Your task to perform on an android device: Add "razer blade" to the cart on newegg Image 0: 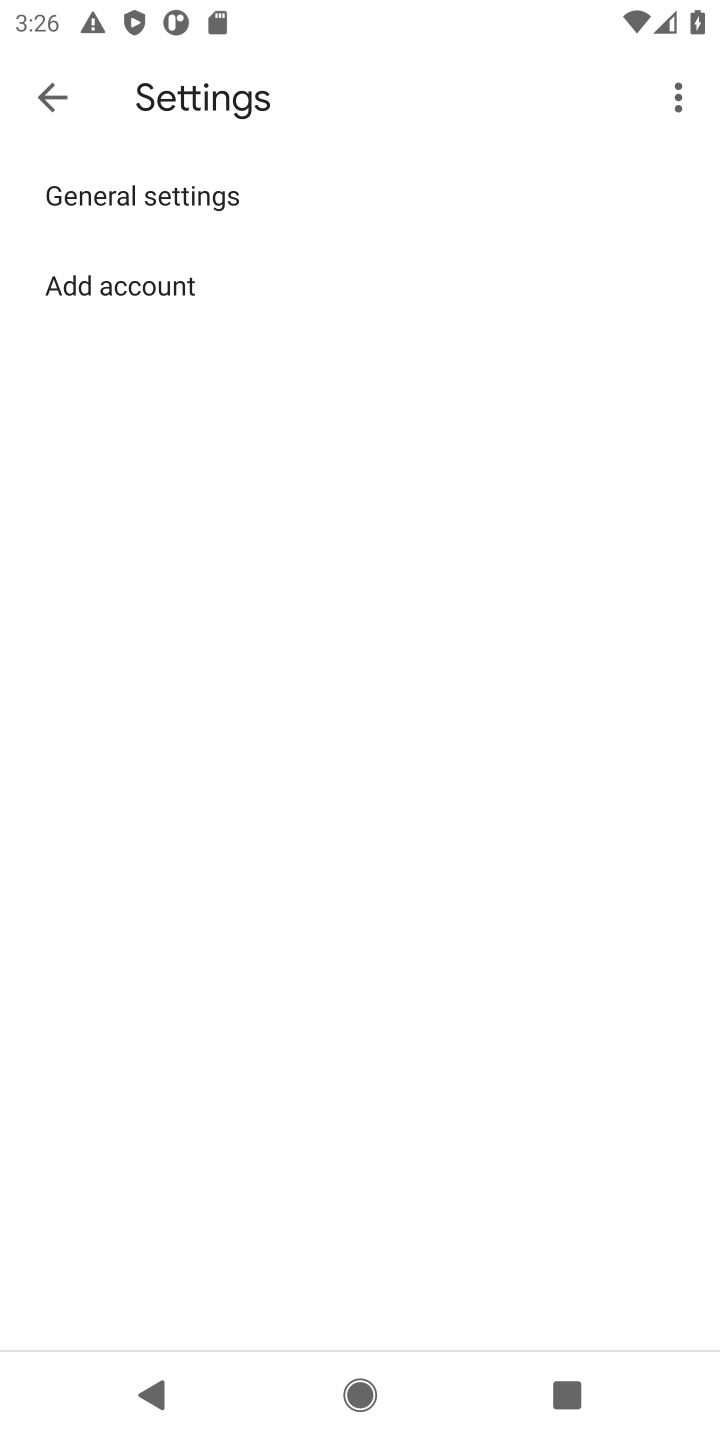
Step 0: press home button
Your task to perform on an android device: Add "razer blade" to the cart on newegg Image 1: 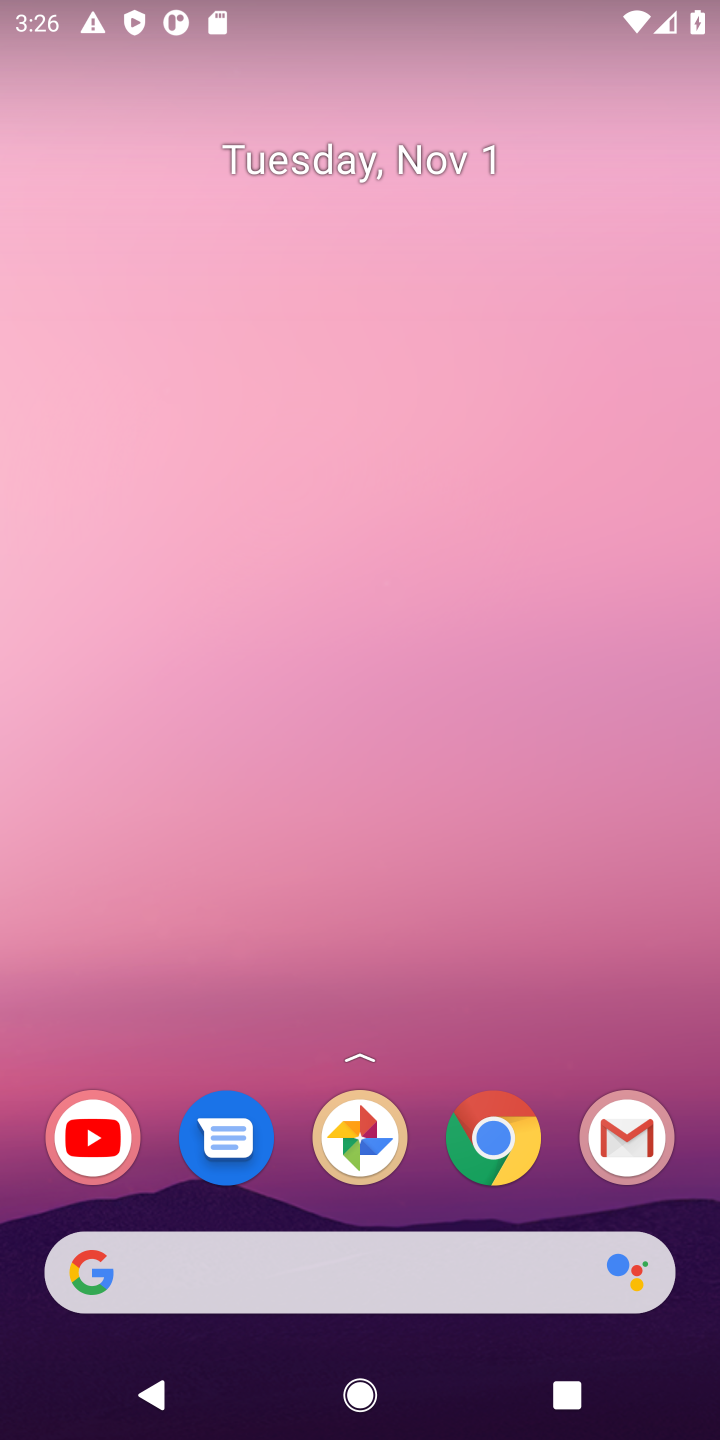
Step 1: click (498, 1151)
Your task to perform on an android device: Add "razer blade" to the cart on newegg Image 2: 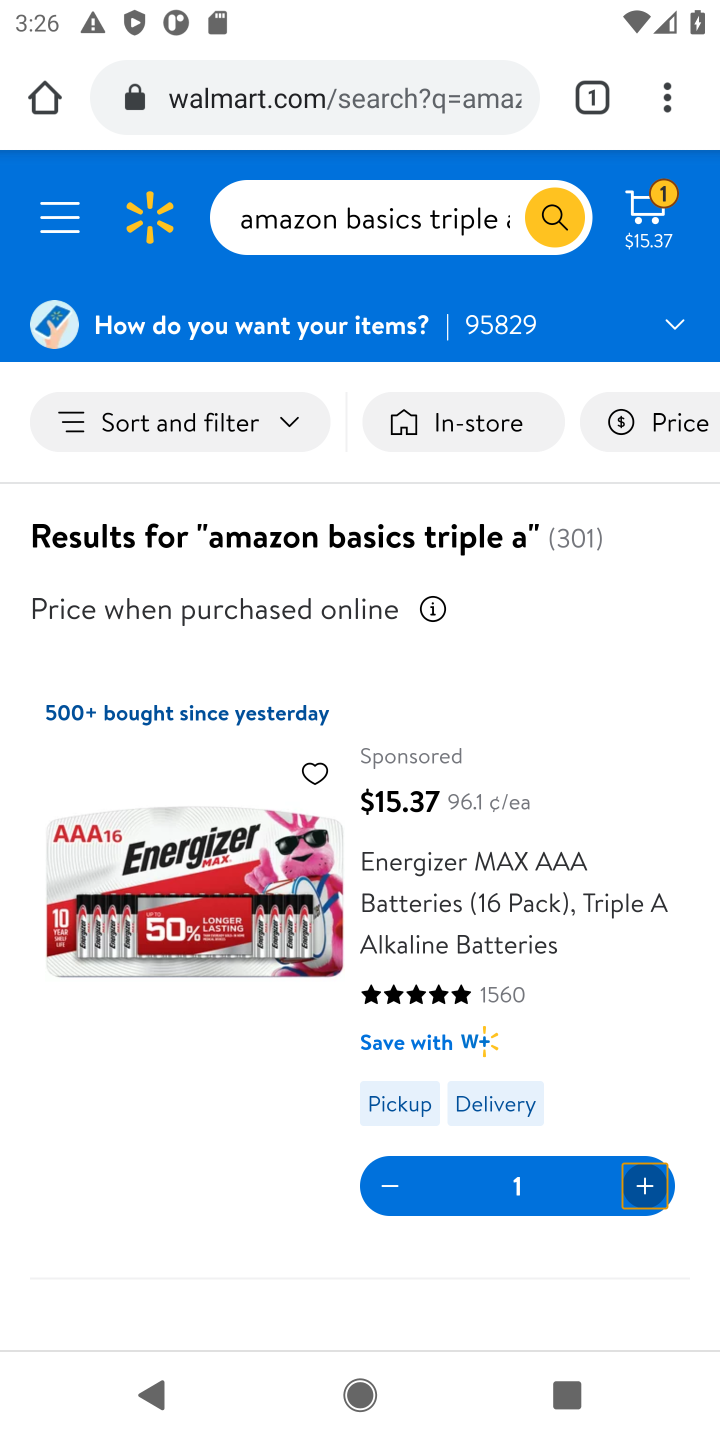
Step 2: click (363, 91)
Your task to perform on an android device: Add "razer blade" to the cart on newegg Image 3: 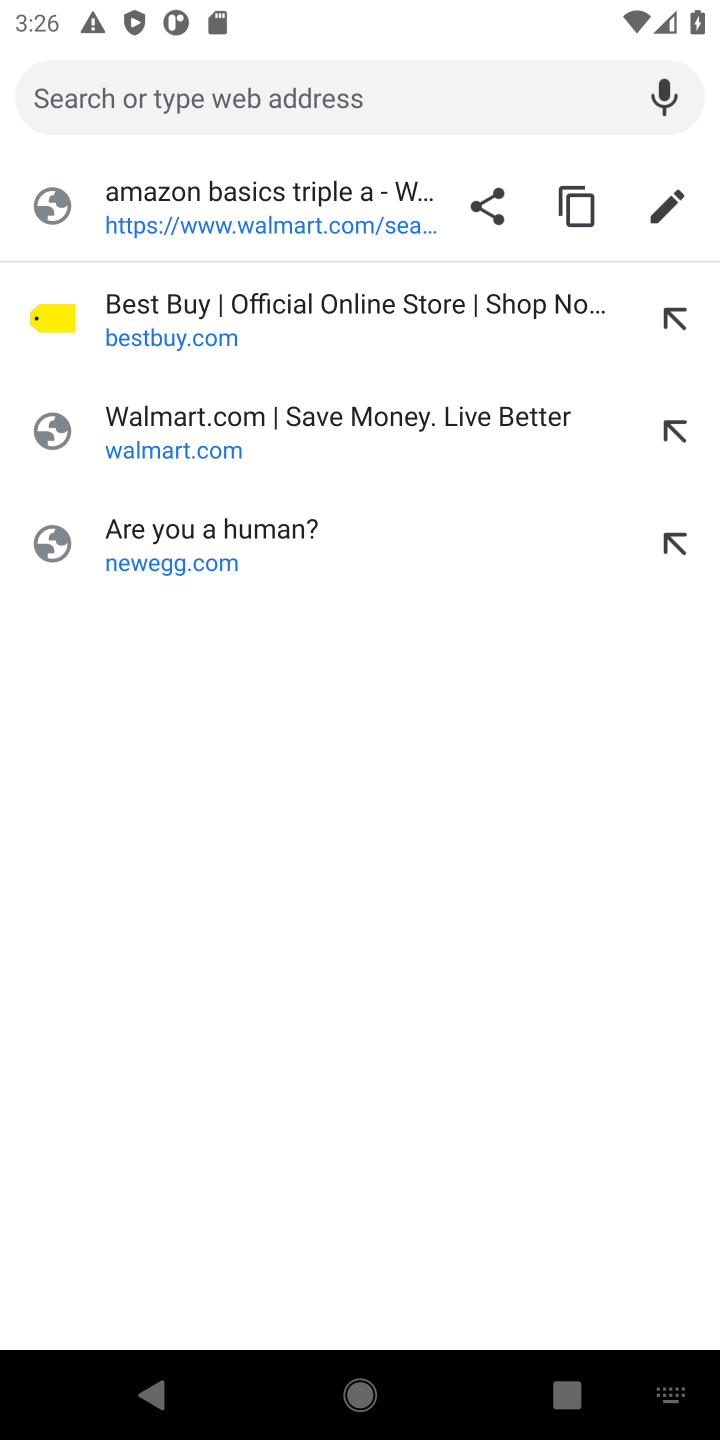
Step 3: type "newegg"
Your task to perform on an android device: Add "razer blade" to the cart on newegg Image 4: 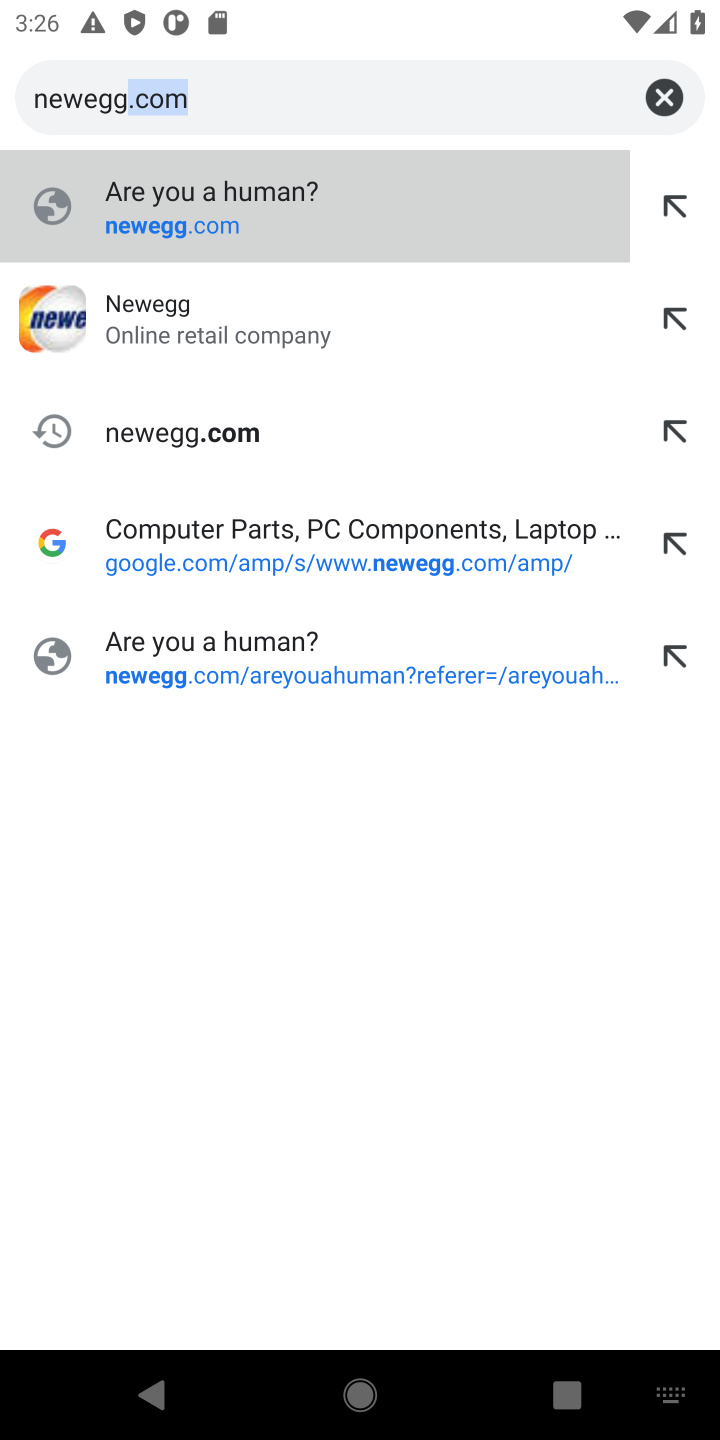
Step 4: click (187, 321)
Your task to perform on an android device: Add "razer blade" to the cart on newegg Image 5: 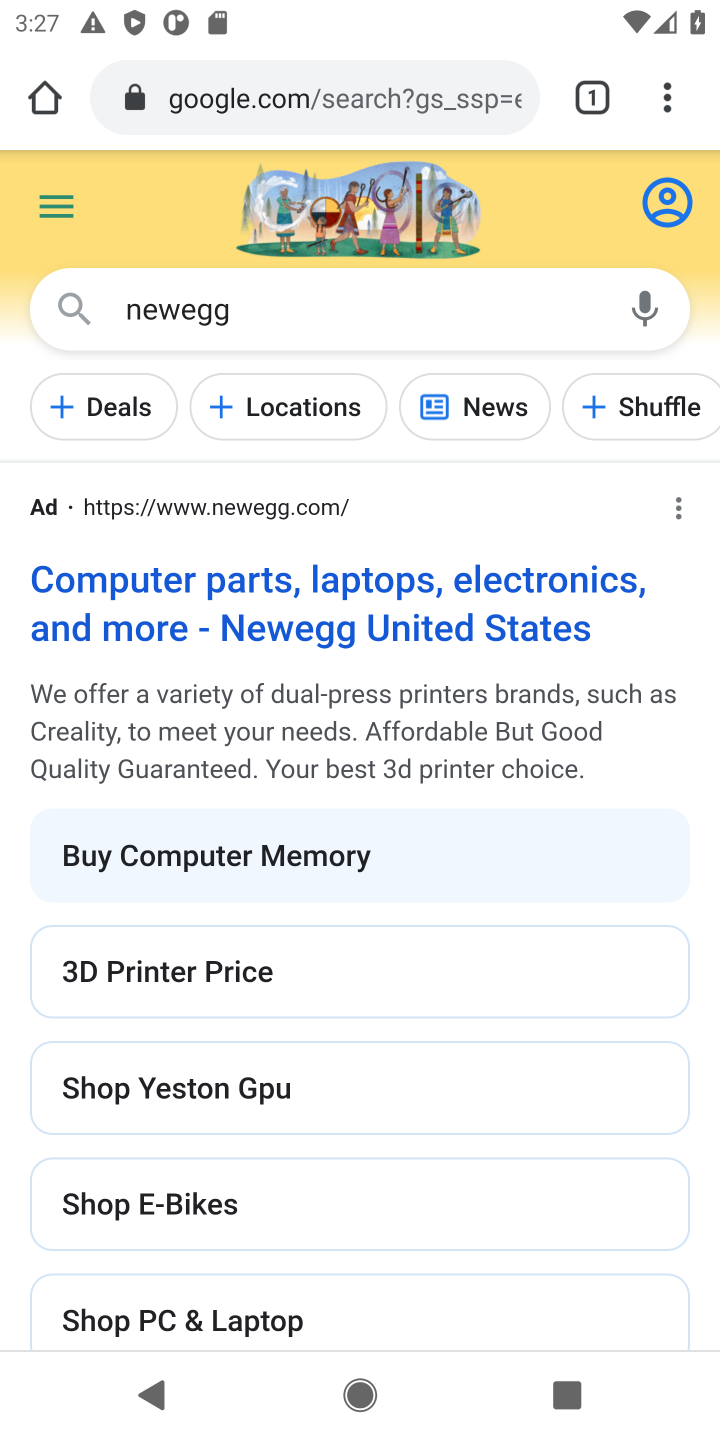
Step 5: drag from (308, 1209) to (315, 766)
Your task to perform on an android device: Add "razer blade" to the cart on newegg Image 6: 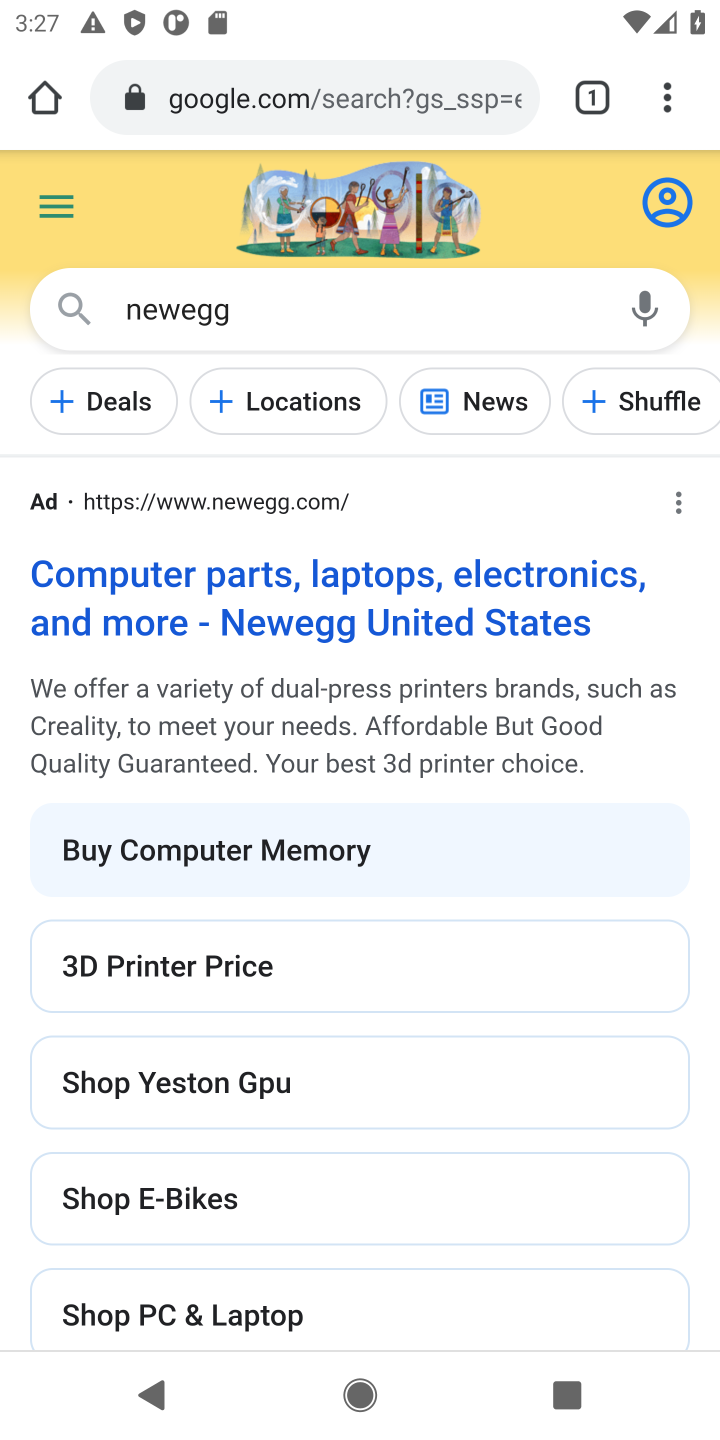
Step 6: drag from (315, 1002) to (356, 733)
Your task to perform on an android device: Add "razer blade" to the cart on newegg Image 7: 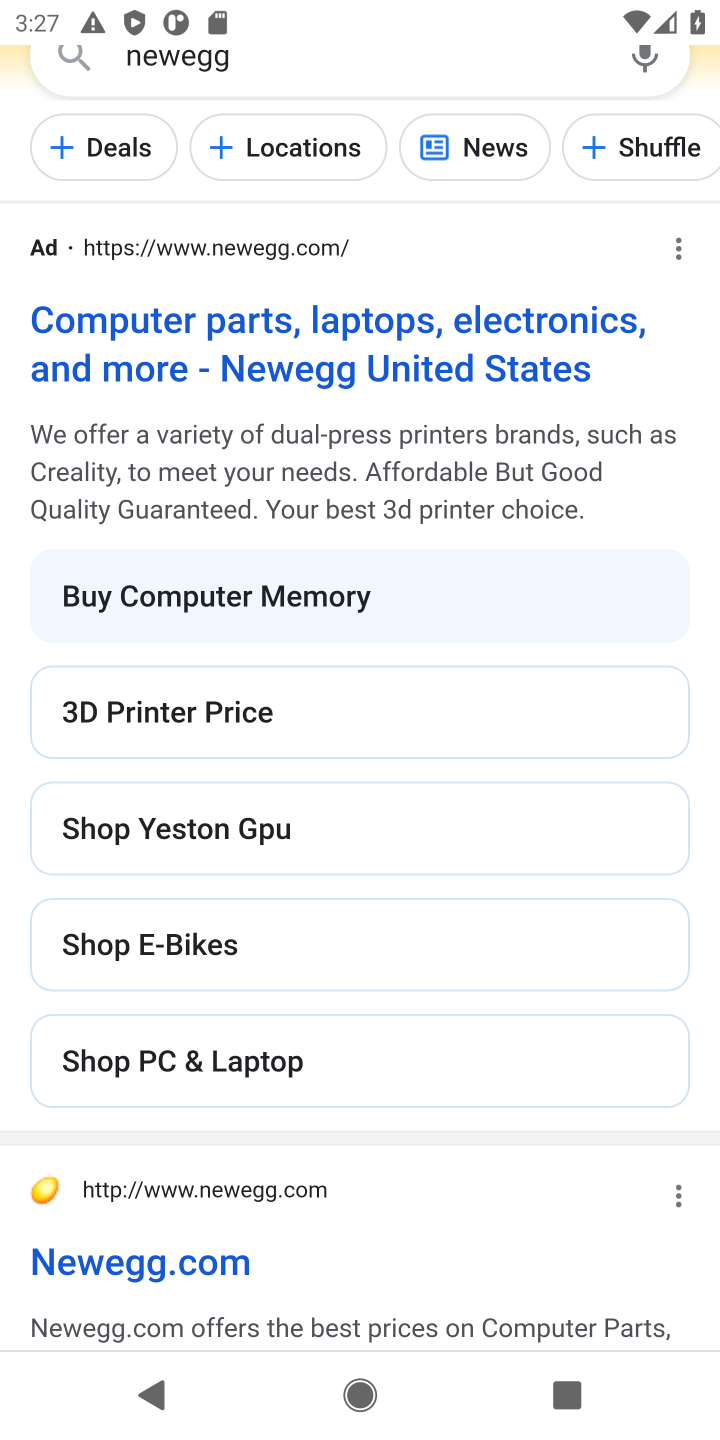
Step 7: click (167, 1283)
Your task to perform on an android device: Add "razer blade" to the cart on newegg Image 8: 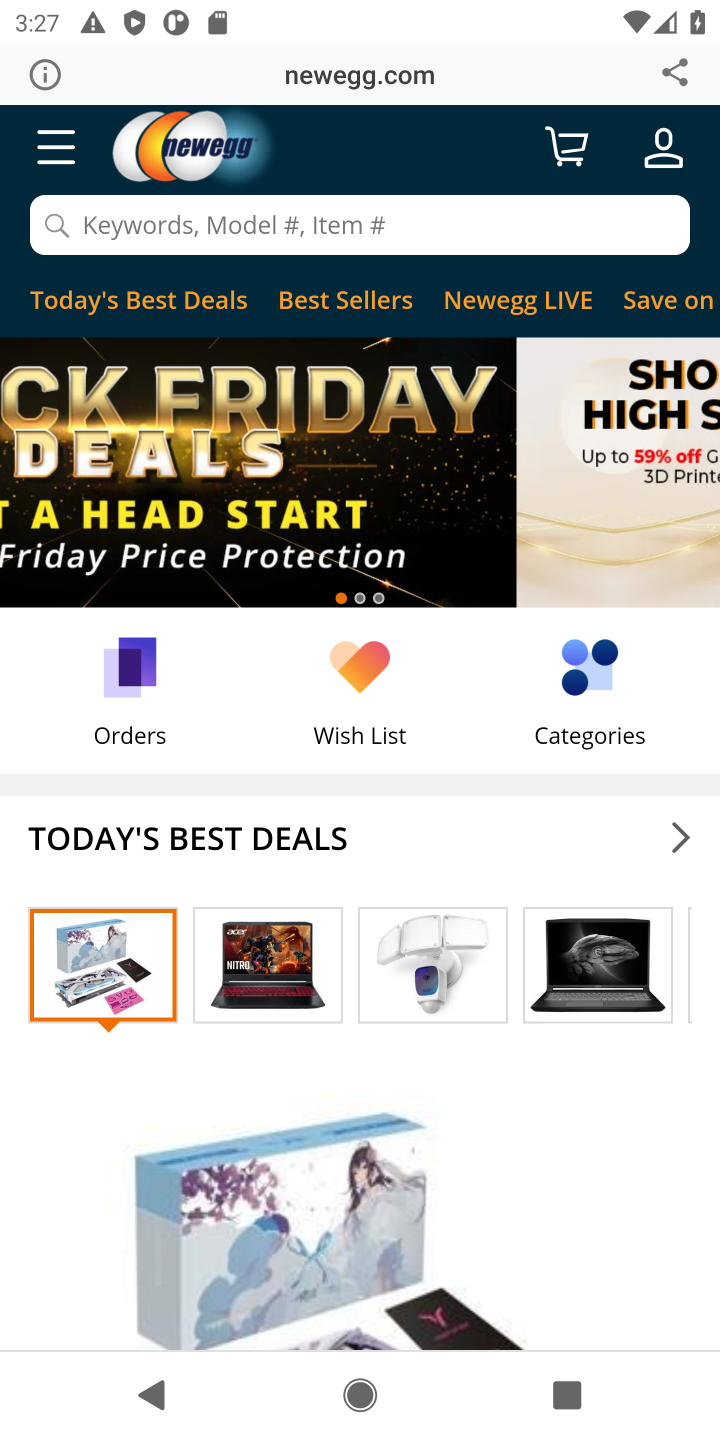
Step 8: drag from (345, 1215) to (391, 752)
Your task to perform on an android device: Add "razer blade" to the cart on newegg Image 9: 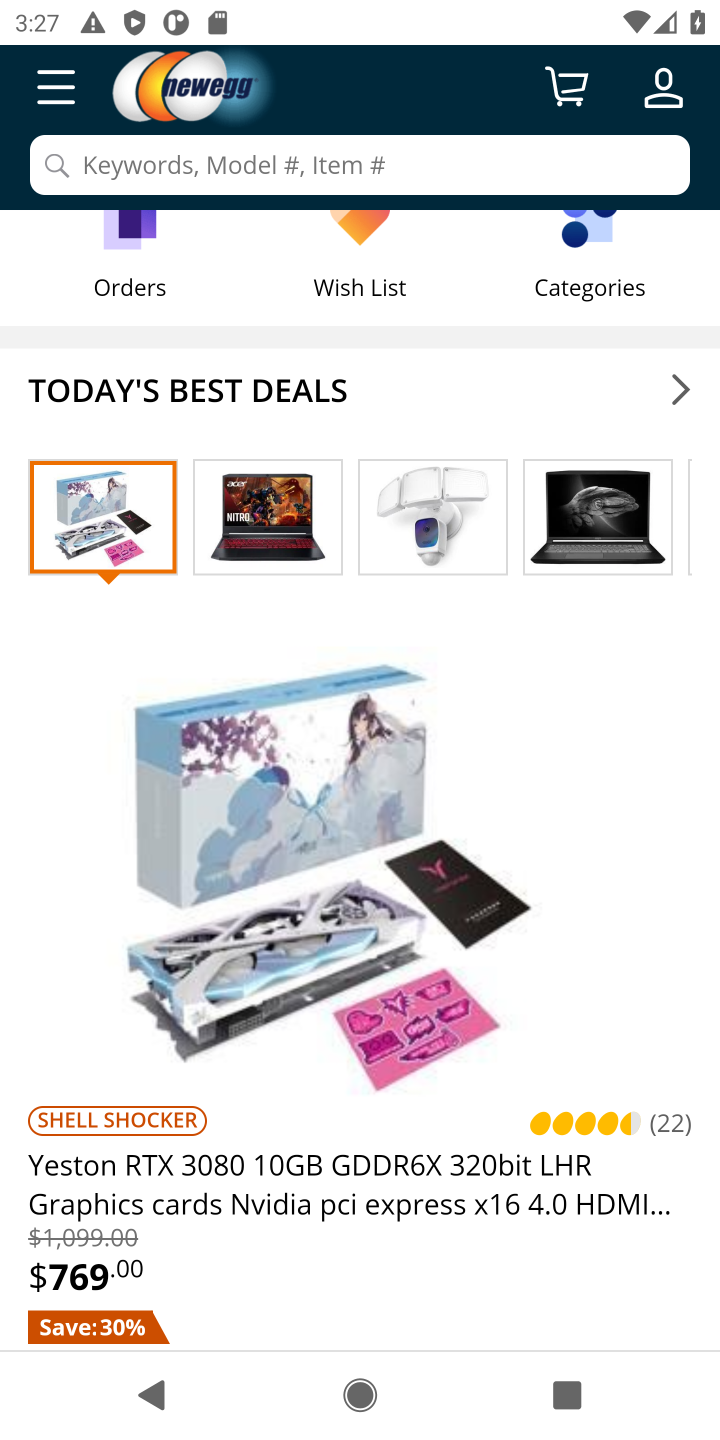
Step 9: click (373, 155)
Your task to perform on an android device: Add "razer blade" to the cart on newegg Image 10: 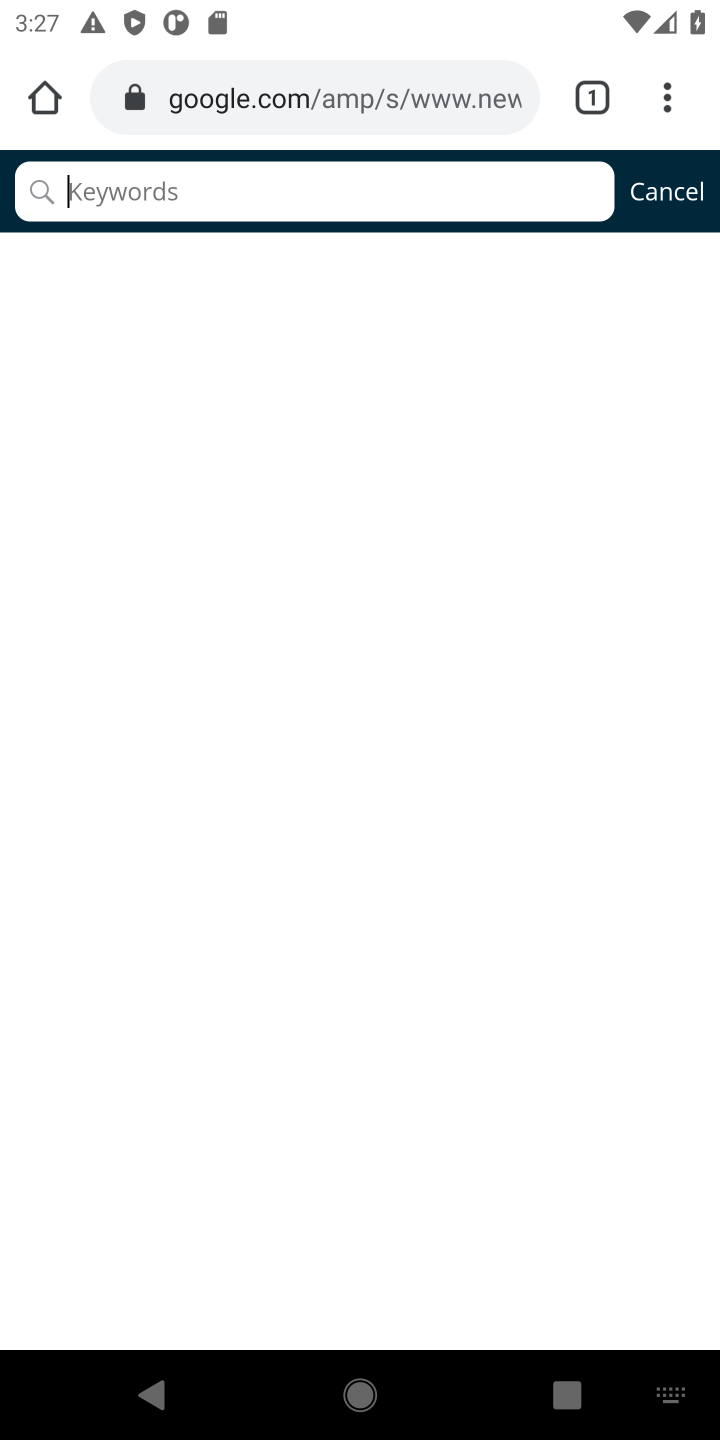
Step 10: type "razer blade"
Your task to perform on an android device: Add "razer blade" to the cart on newegg Image 11: 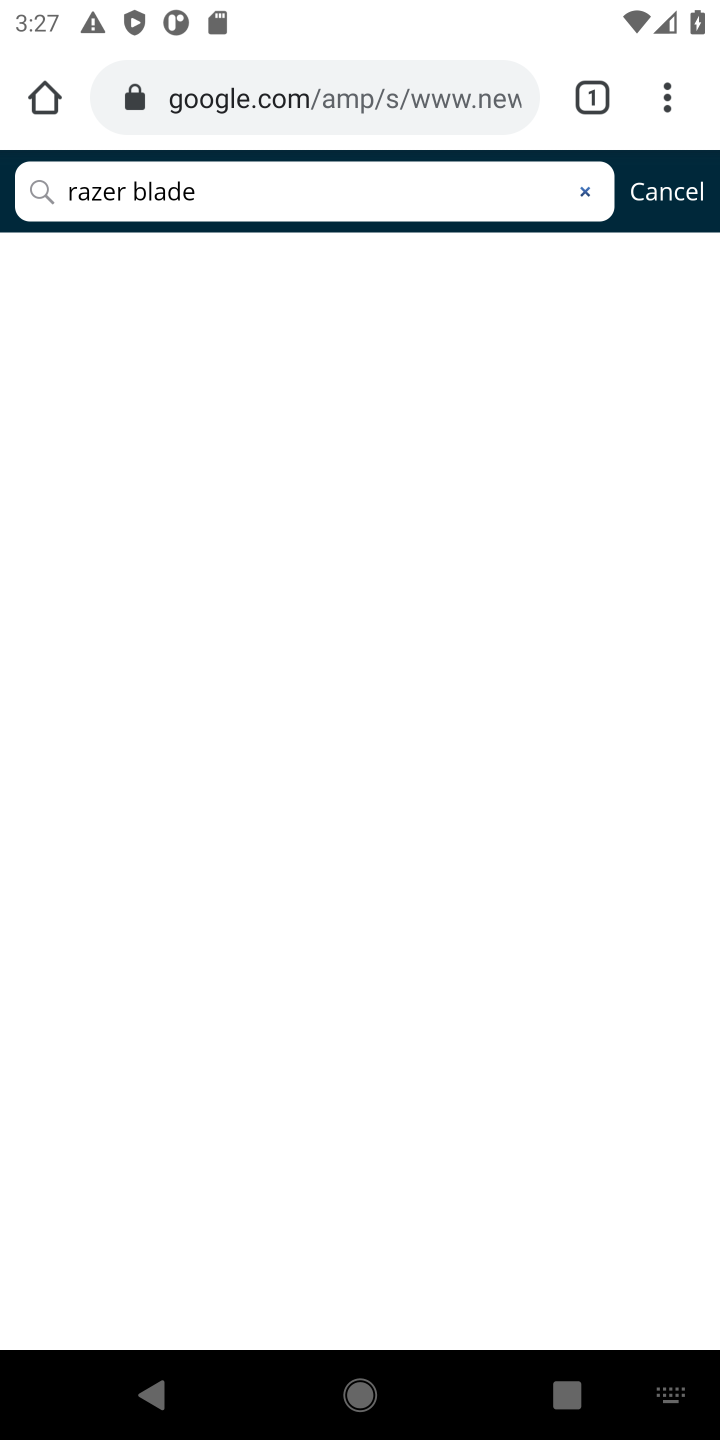
Step 11: click (41, 188)
Your task to perform on an android device: Add "razer blade" to the cart on newegg Image 12: 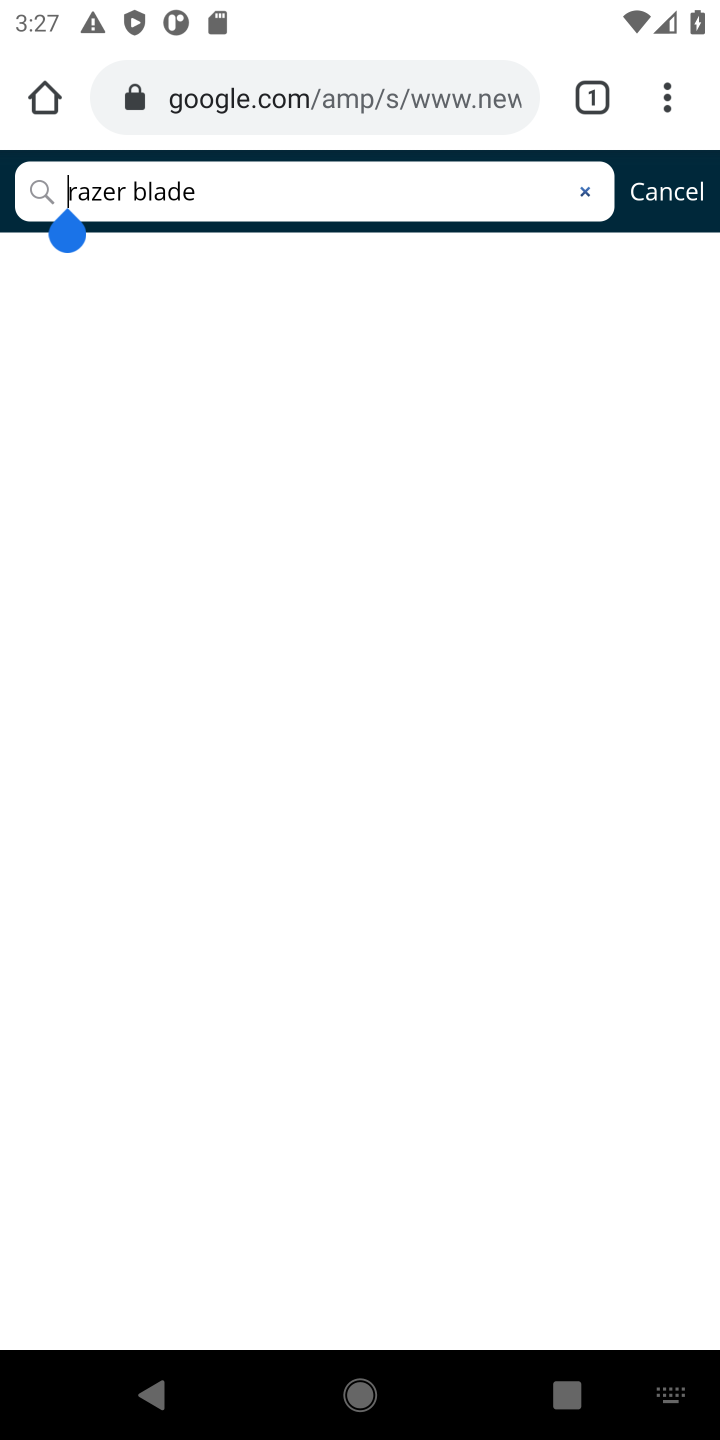
Step 12: click (41, 188)
Your task to perform on an android device: Add "razer blade" to the cart on newegg Image 13: 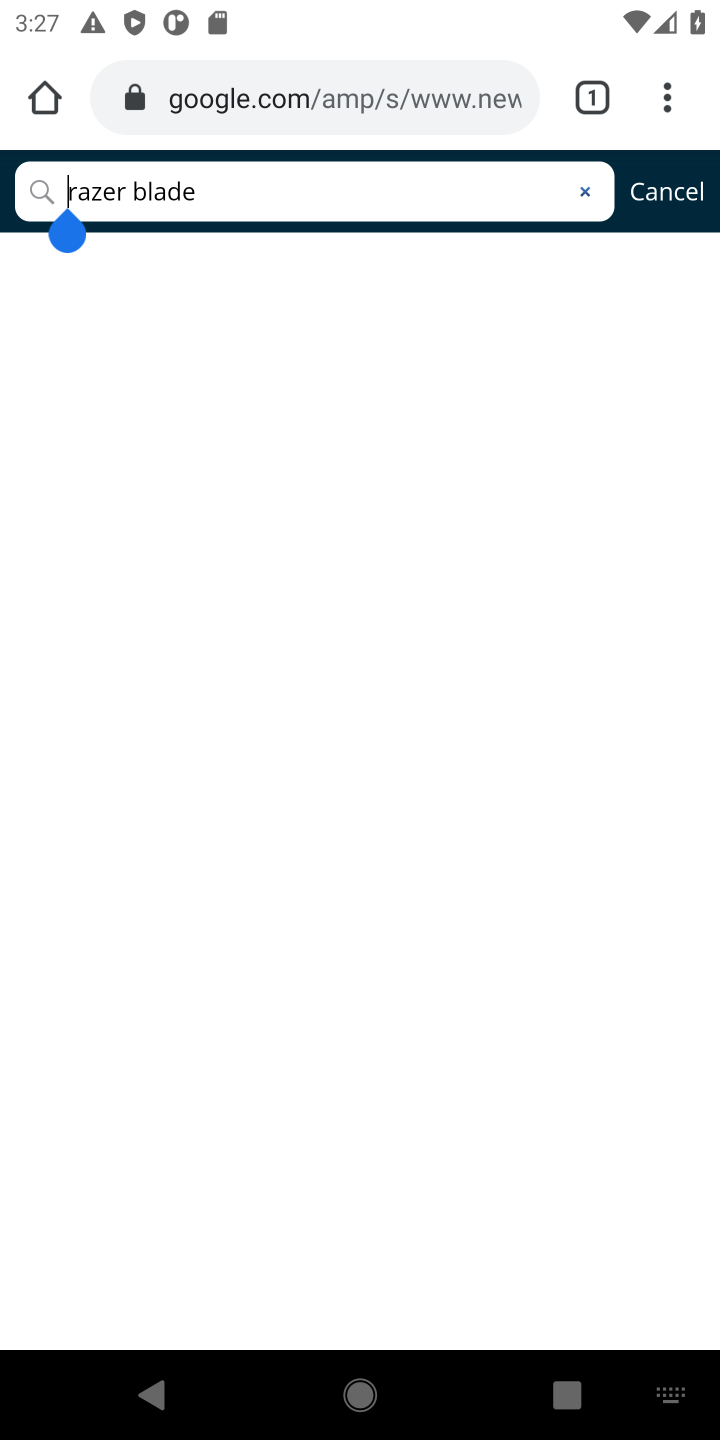
Step 13: click (41, 188)
Your task to perform on an android device: Add "razer blade" to the cart on newegg Image 14: 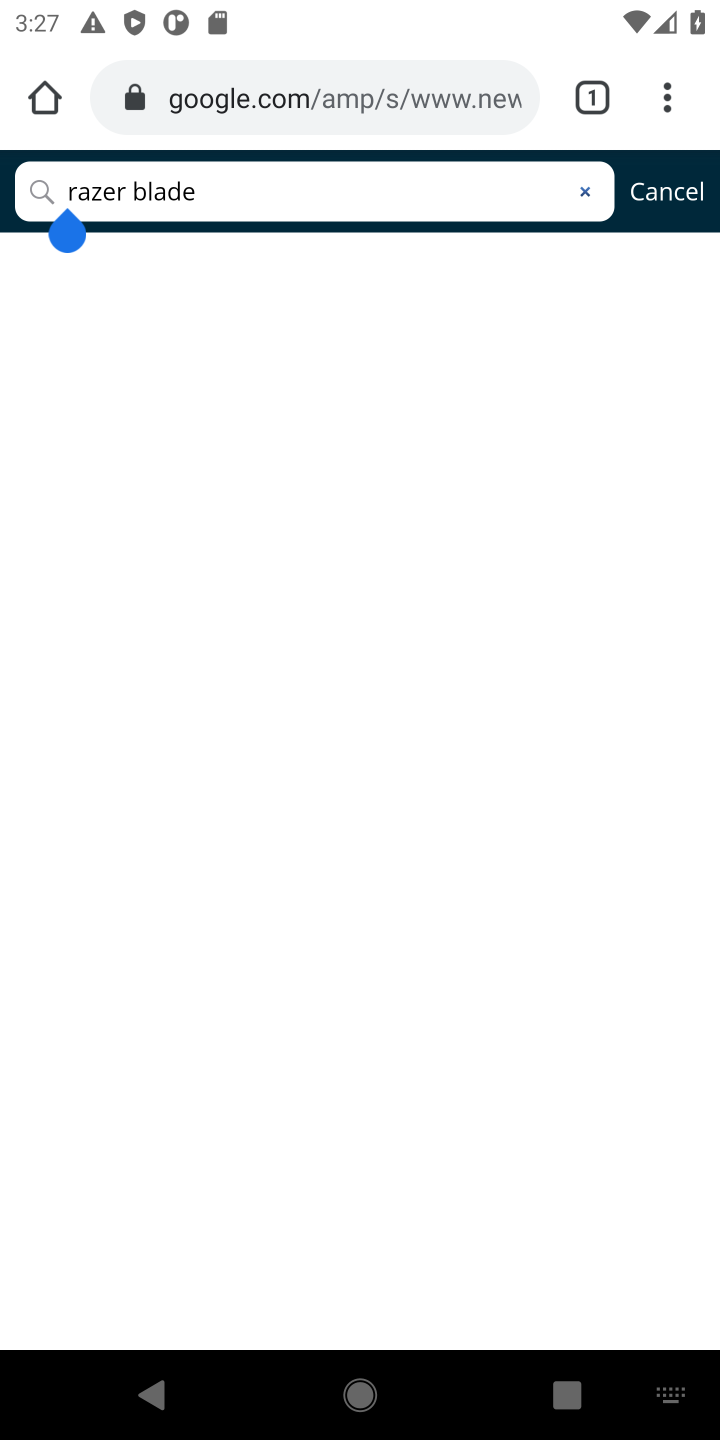
Step 14: task complete